Your task to perform on an android device: open wifi settings Image 0: 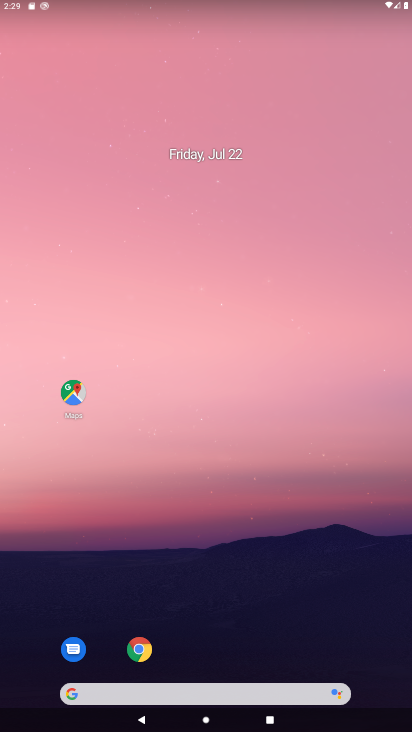
Step 0: drag from (238, 649) to (244, 351)
Your task to perform on an android device: open wifi settings Image 1: 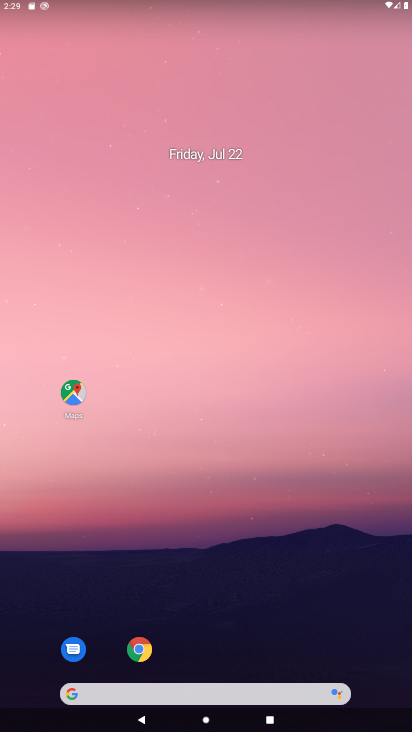
Step 1: drag from (220, 724) to (273, 15)
Your task to perform on an android device: open wifi settings Image 2: 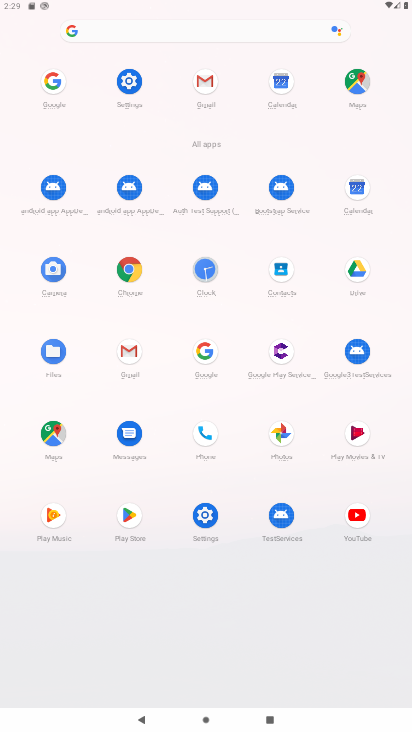
Step 2: click (116, 73)
Your task to perform on an android device: open wifi settings Image 3: 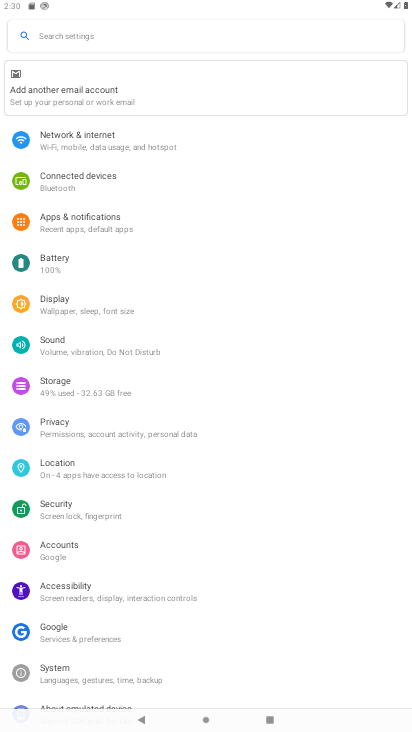
Step 3: click (64, 144)
Your task to perform on an android device: open wifi settings Image 4: 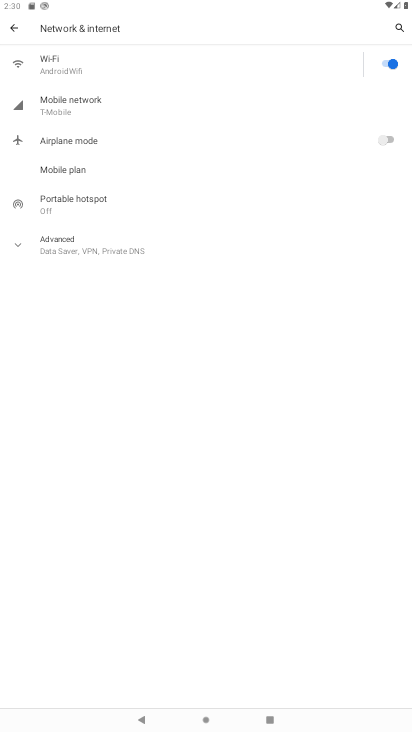
Step 4: click (56, 60)
Your task to perform on an android device: open wifi settings Image 5: 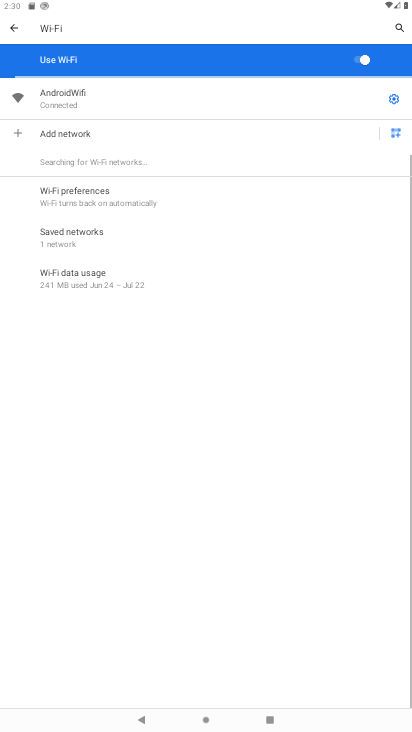
Step 5: task complete